Your task to perform on an android device: choose inbox layout in the gmail app Image 0: 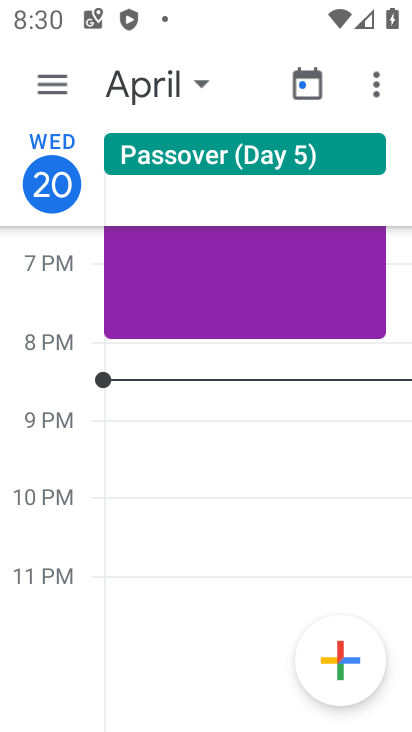
Step 0: press back button
Your task to perform on an android device: choose inbox layout in the gmail app Image 1: 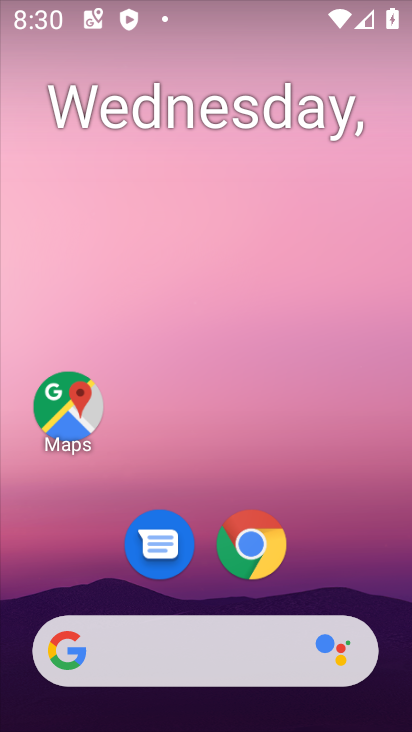
Step 1: drag from (155, 540) to (277, 41)
Your task to perform on an android device: choose inbox layout in the gmail app Image 2: 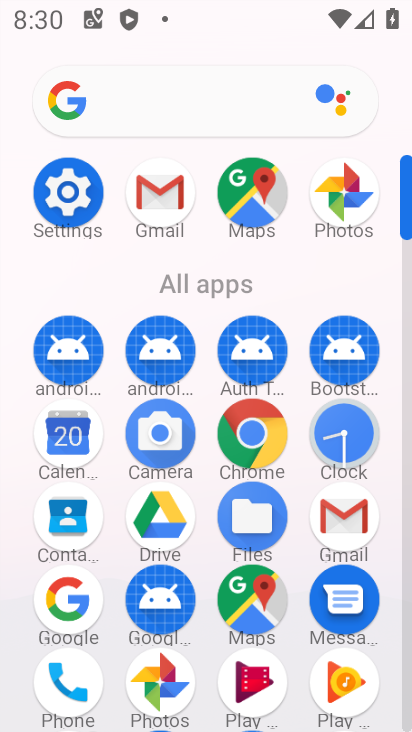
Step 2: click (151, 180)
Your task to perform on an android device: choose inbox layout in the gmail app Image 3: 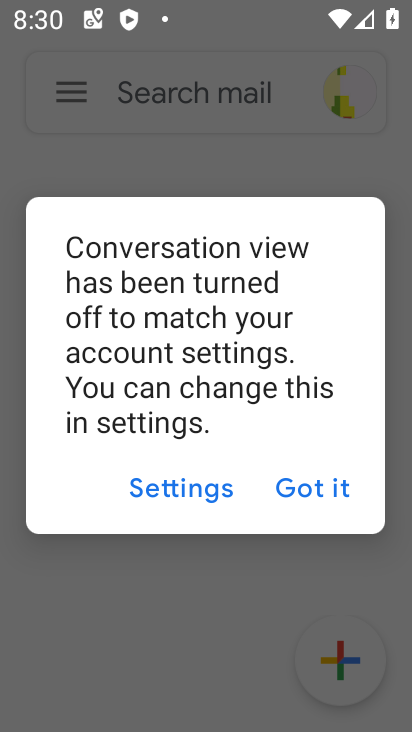
Step 3: click (314, 488)
Your task to perform on an android device: choose inbox layout in the gmail app Image 4: 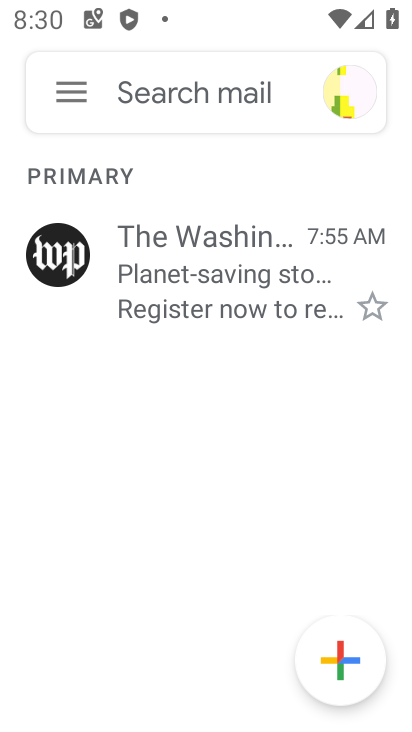
Step 4: click (74, 87)
Your task to perform on an android device: choose inbox layout in the gmail app Image 5: 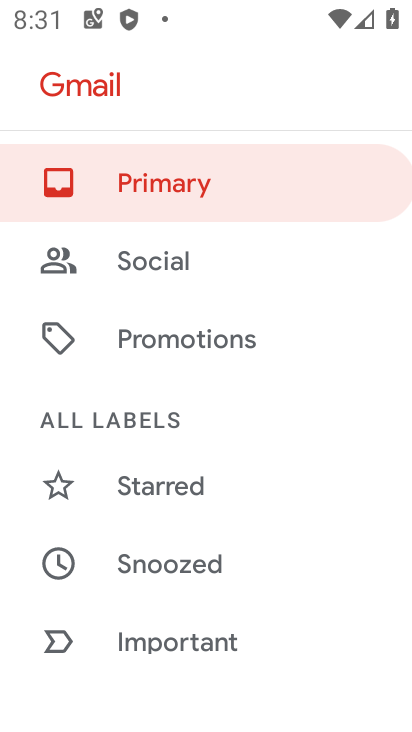
Step 5: drag from (188, 583) to (244, 81)
Your task to perform on an android device: choose inbox layout in the gmail app Image 6: 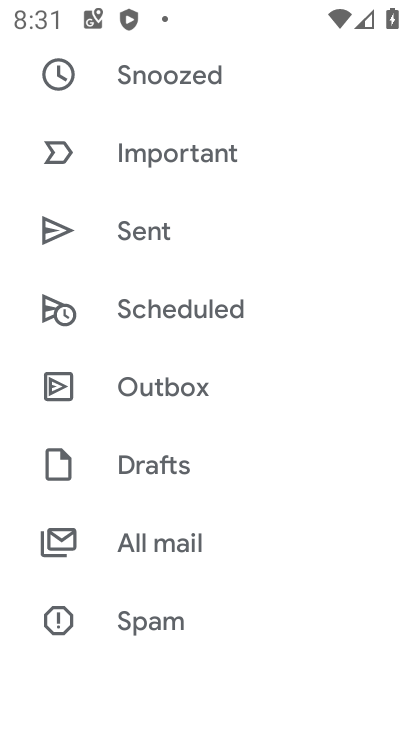
Step 6: drag from (201, 527) to (297, 13)
Your task to perform on an android device: choose inbox layout in the gmail app Image 7: 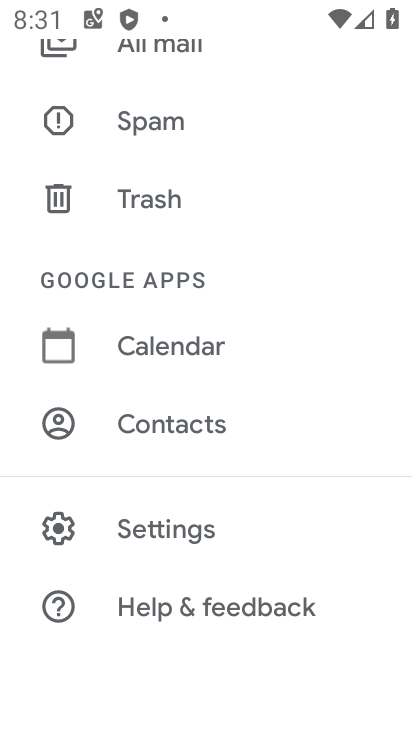
Step 7: click (197, 538)
Your task to perform on an android device: choose inbox layout in the gmail app Image 8: 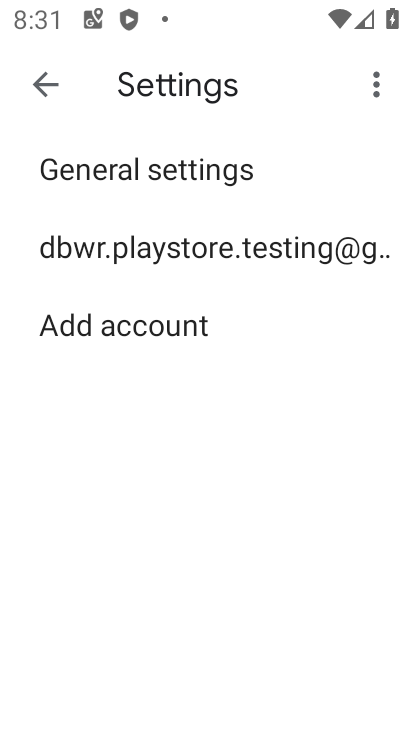
Step 8: click (170, 257)
Your task to perform on an android device: choose inbox layout in the gmail app Image 9: 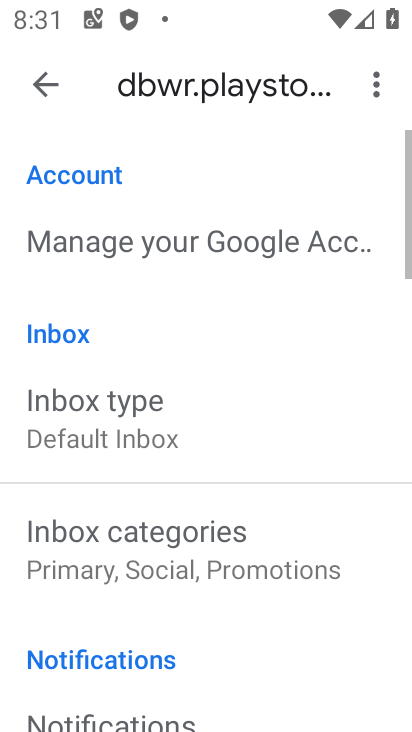
Step 9: click (121, 417)
Your task to perform on an android device: choose inbox layout in the gmail app Image 10: 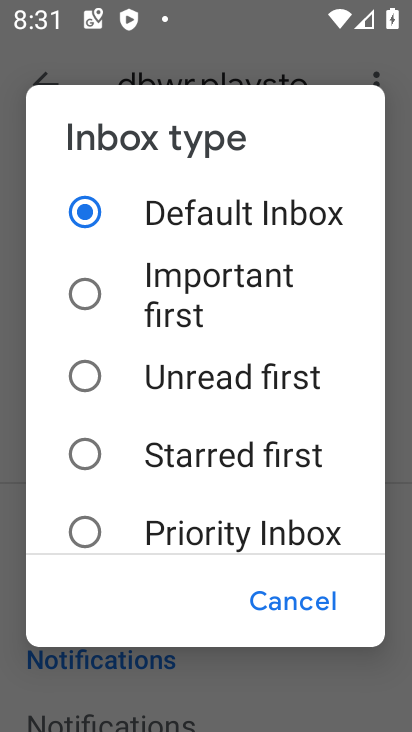
Step 10: click (95, 529)
Your task to perform on an android device: choose inbox layout in the gmail app Image 11: 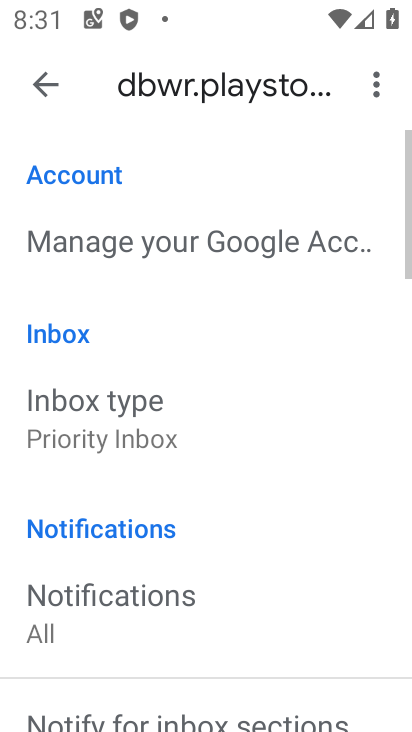
Step 11: task complete